Your task to perform on an android device: Open calendar and show me the first week of next month Image 0: 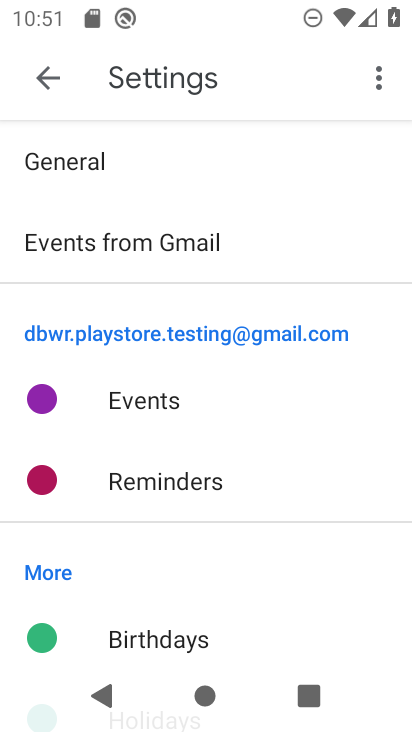
Step 0: press home button
Your task to perform on an android device: Open calendar and show me the first week of next month Image 1: 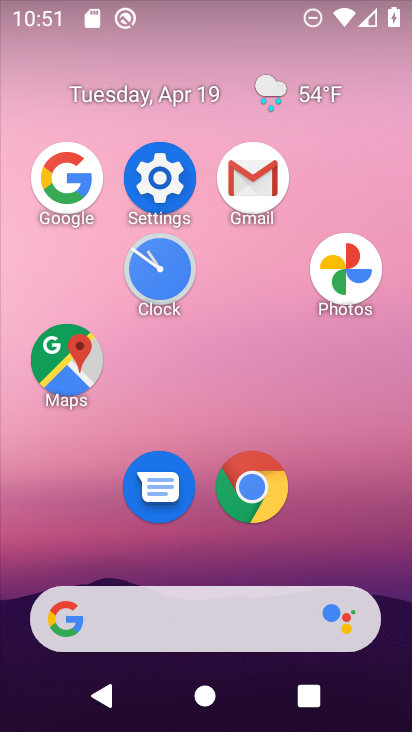
Step 1: drag from (188, 556) to (245, 92)
Your task to perform on an android device: Open calendar and show me the first week of next month Image 2: 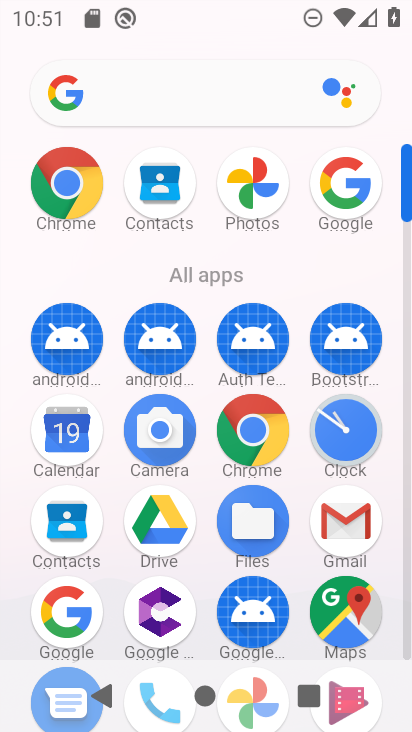
Step 2: click (66, 448)
Your task to perform on an android device: Open calendar and show me the first week of next month Image 3: 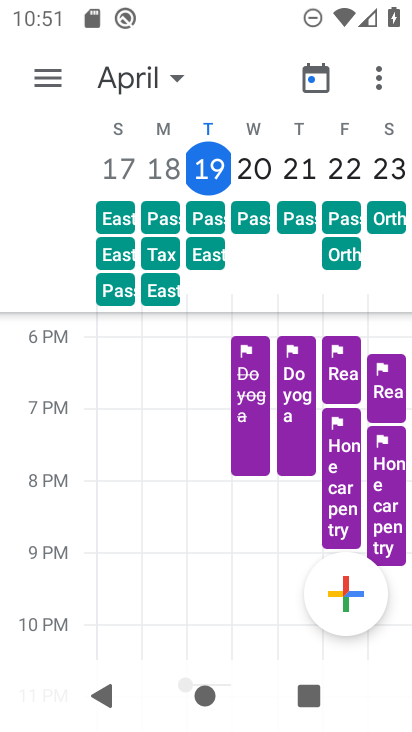
Step 3: click (172, 74)
Your task to perform on an android device: Open calendar and show me the first week of next month Image 4: 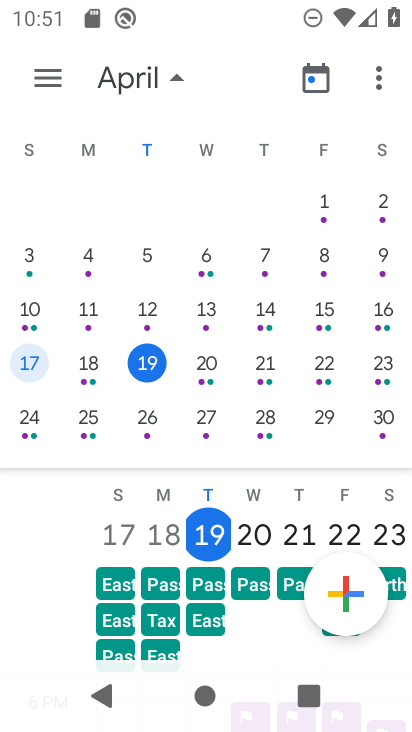
Step 4: drag from (387, 331) to (20, 442)
Your task to perform on an android device: Open calendar and show me the first week of next month Image 5: 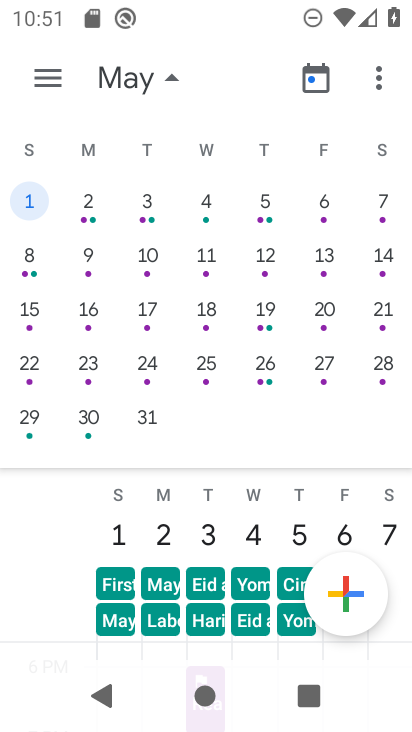
Step 5: click (44, 80)
Your task to perform on an android device: Open calendar and show me the first week of next month Image 6: 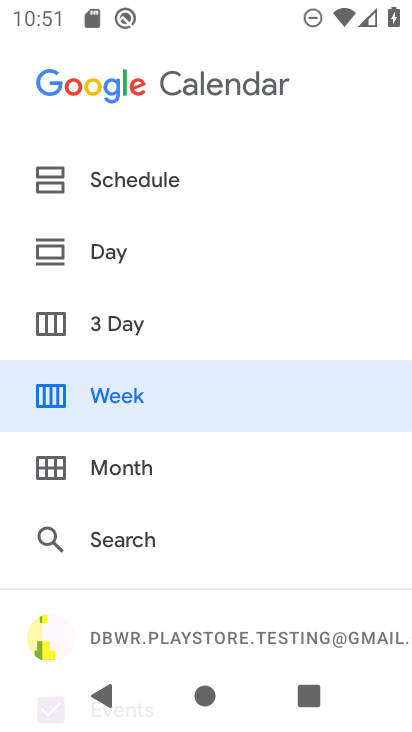
Step 6: click (139, 400)
Your task to perform on an android device: Open calendar and show me the first week of next month Image 7: 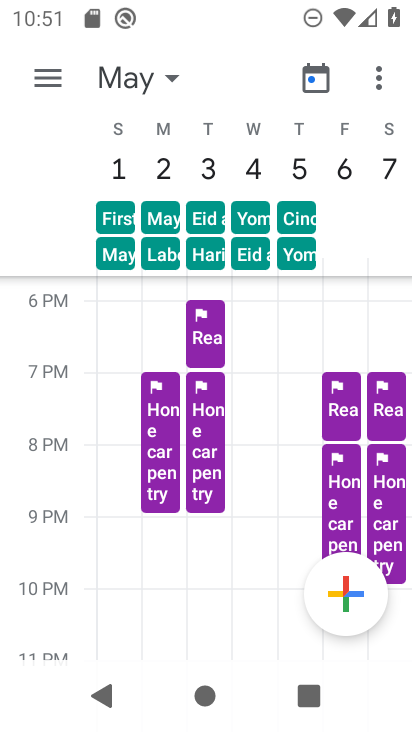
Step 7: task complete